Your task to perform on an android device: Go to Maps Image 0: 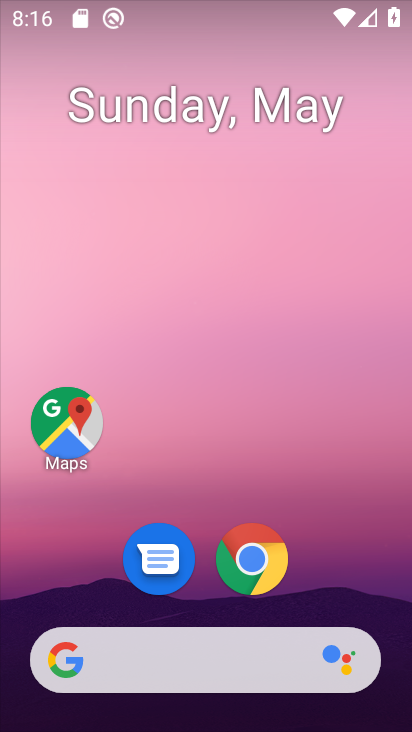
Step 0: drag from (66, 561) to (261, 115)
Your task to perform on an android device: Go to Maps Image 1: 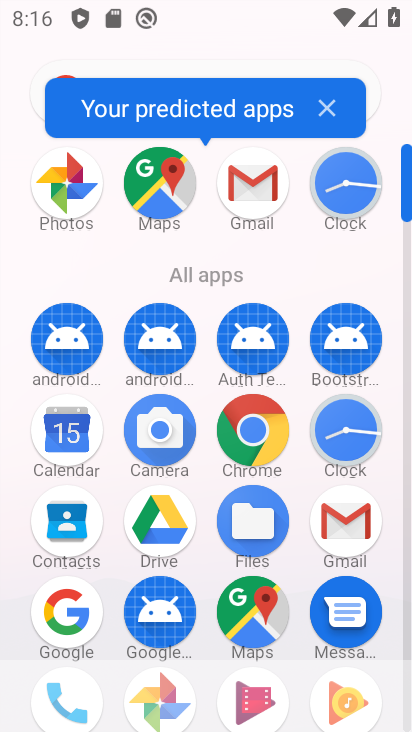
Step 1: click (255, 627)
Your task to perform on an android device: Go to Maps Image 2: 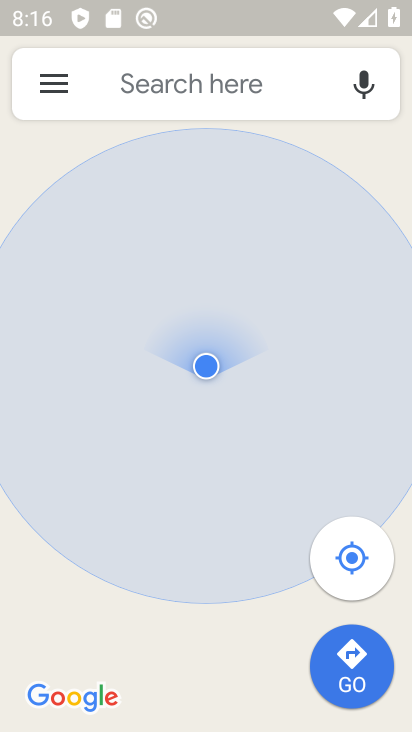
Step 2: press home button
Your task to perform on an android device: Go to Maps Image 3: 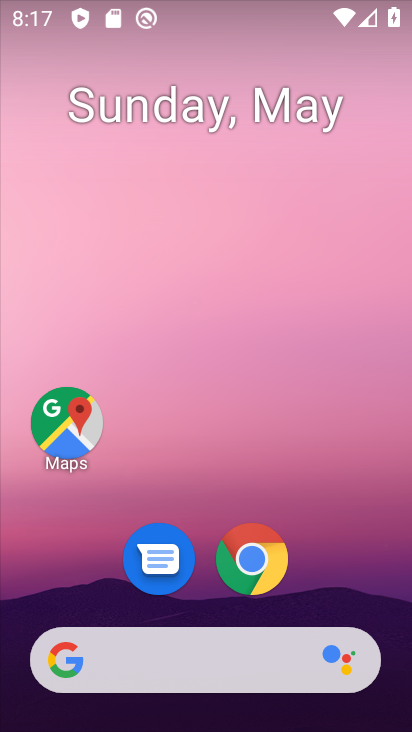
Step 3: drag from (37, 569) to (284, 47)
Your task to perform on an android device: Go to Maps Image 4: 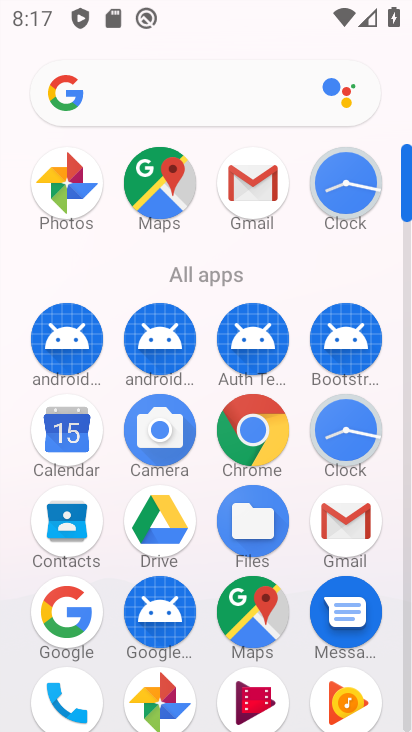
Step 4: click (165, 179)
Your task to perform on an android device: Go to Maps Image 5: 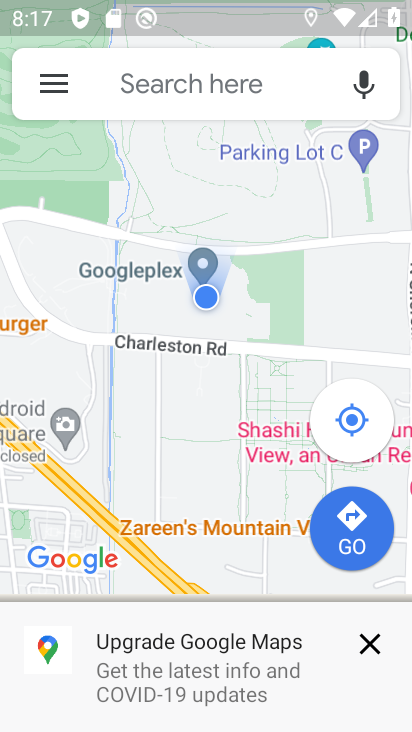
Step 5: task complete